Your task to perform on an android device: open wifi settings Image 0: 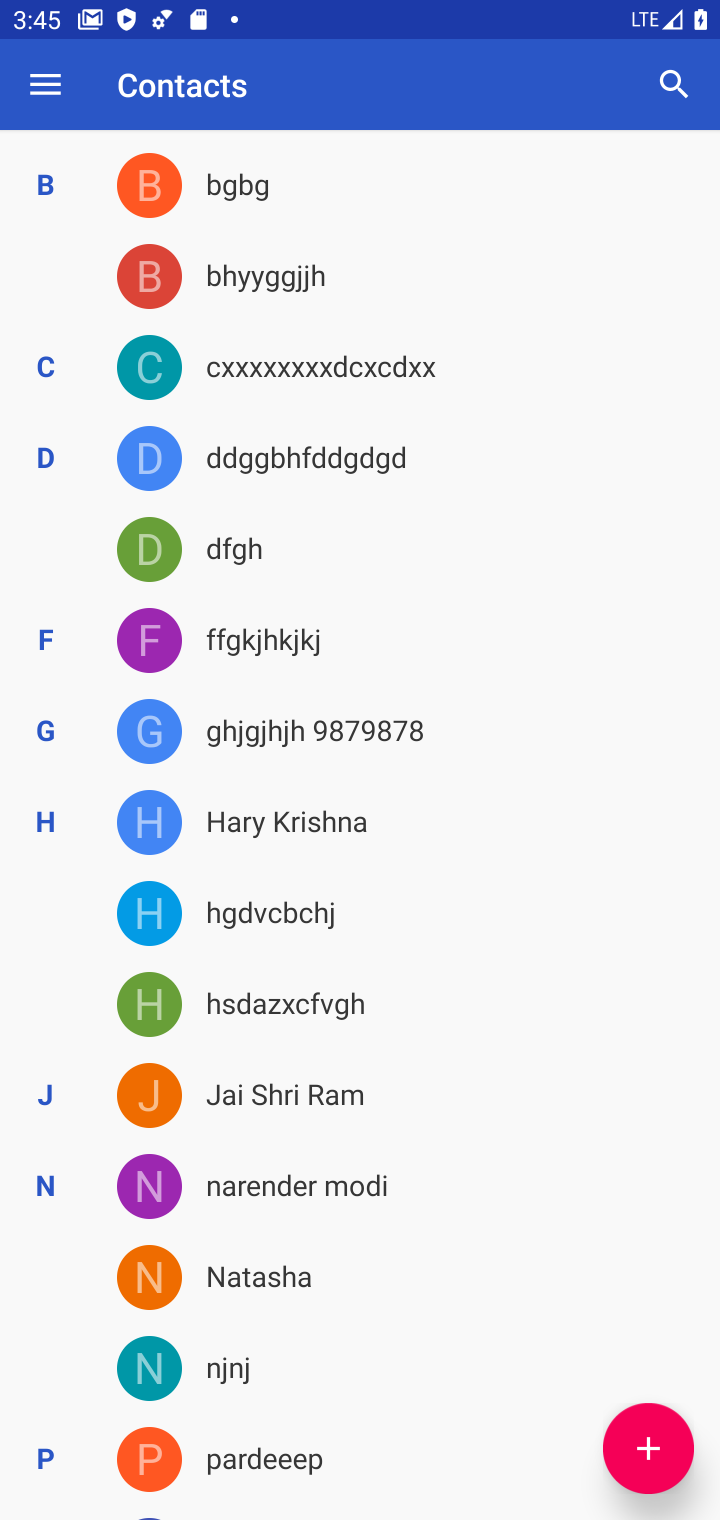
Step 0: press back button
Your task to perform on an android device: open wifi settings Image 1: 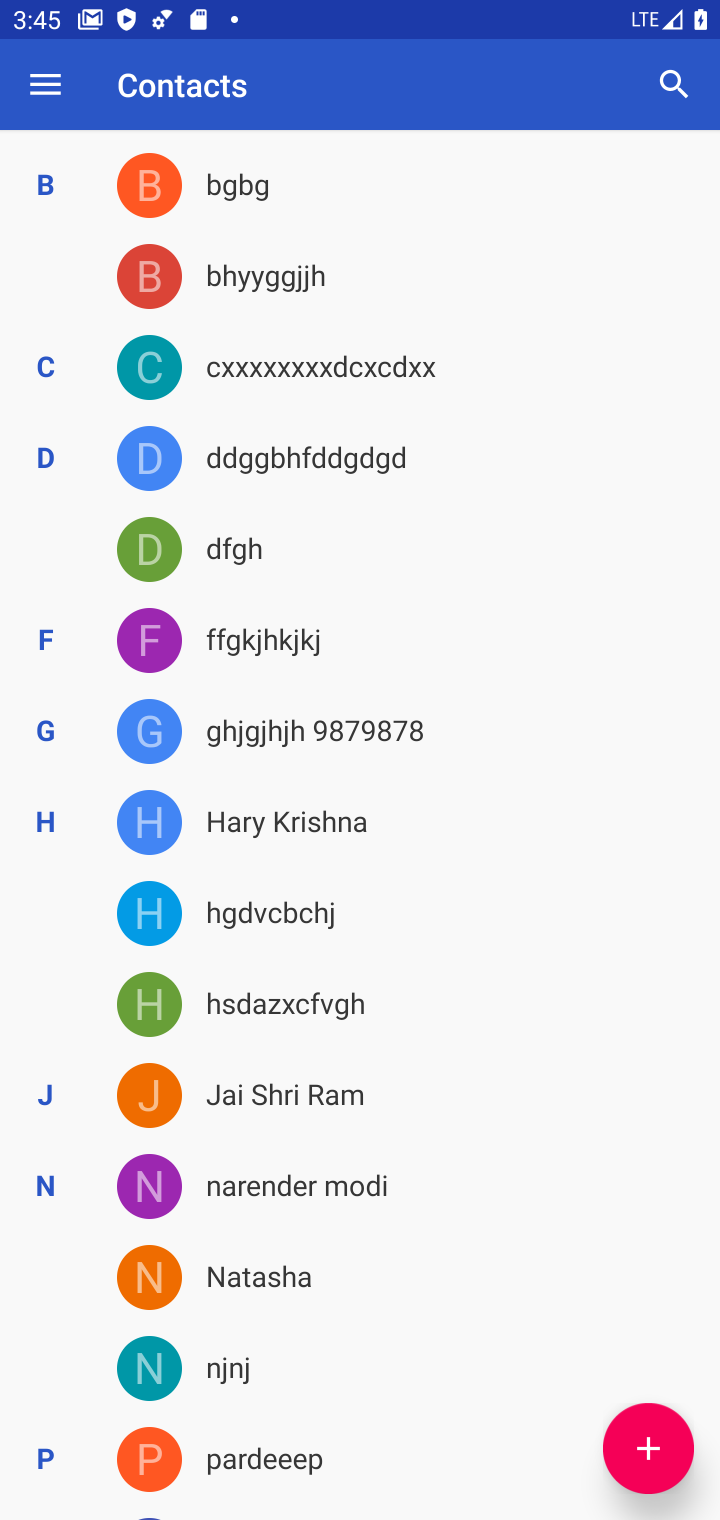
Step 1: press back button
Your task to perform on an android device: open wifi settings Image 2: 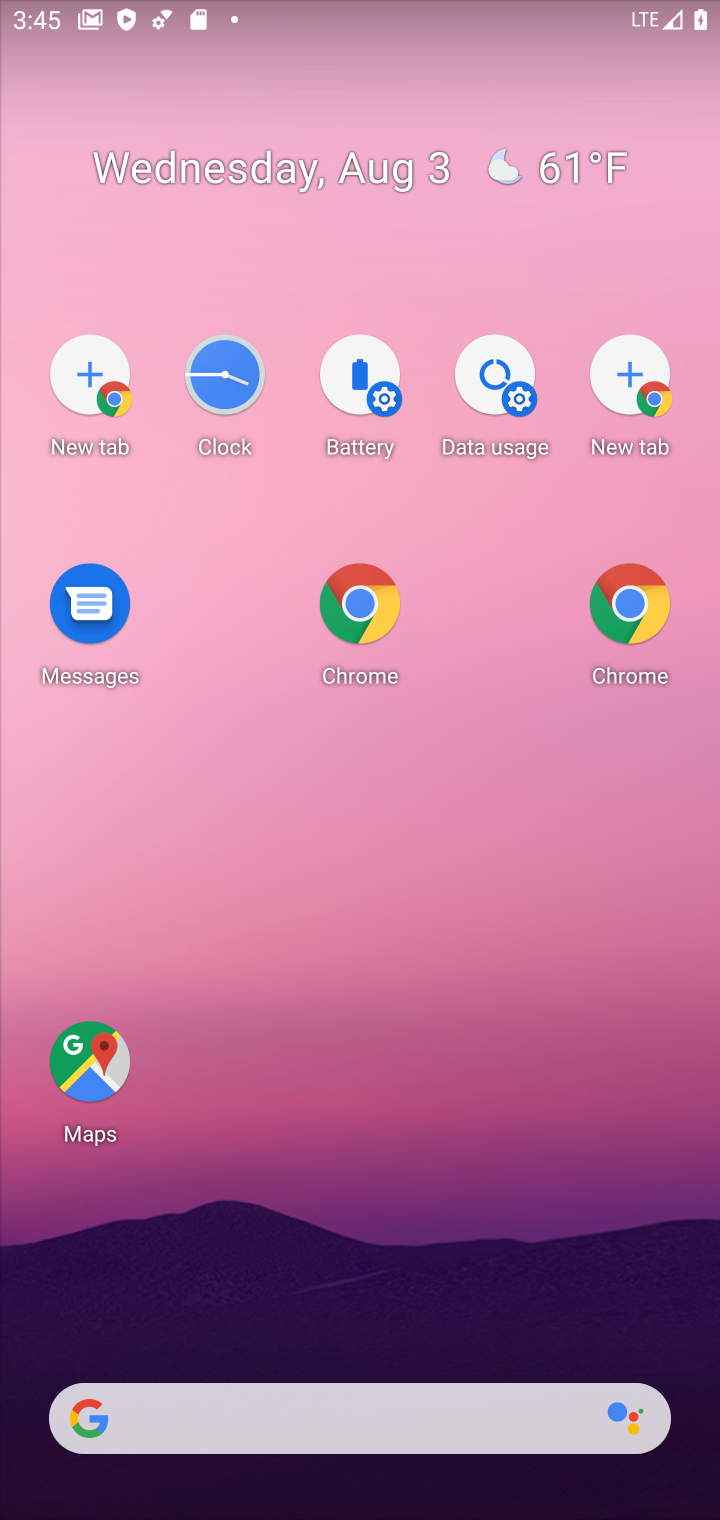
Step 2: drag from (374, 996) to (379, 770)
Your task to perform on an android device: open wifi settings Image 3: 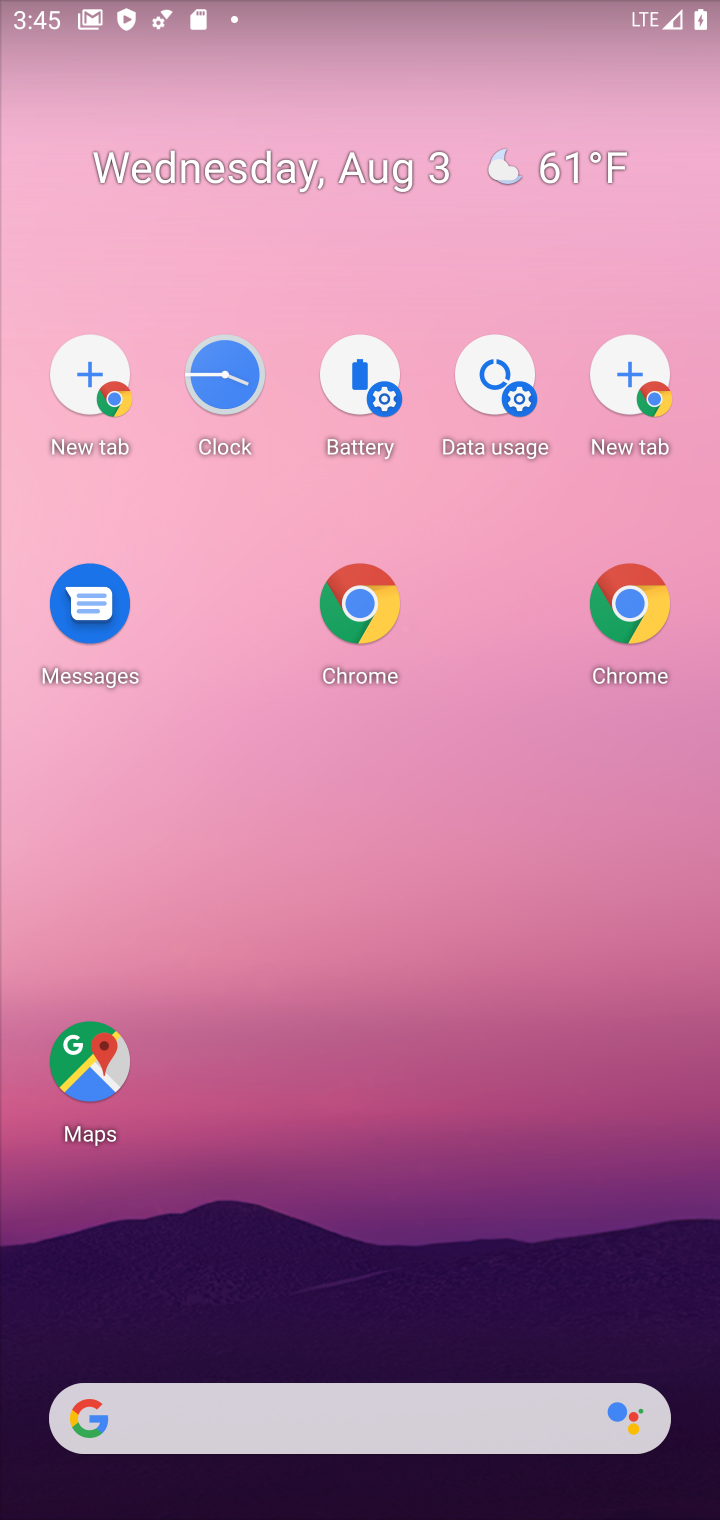
Step 3: click (448, 643)
Your task to perform on an android device: open wifi settings Image 4: 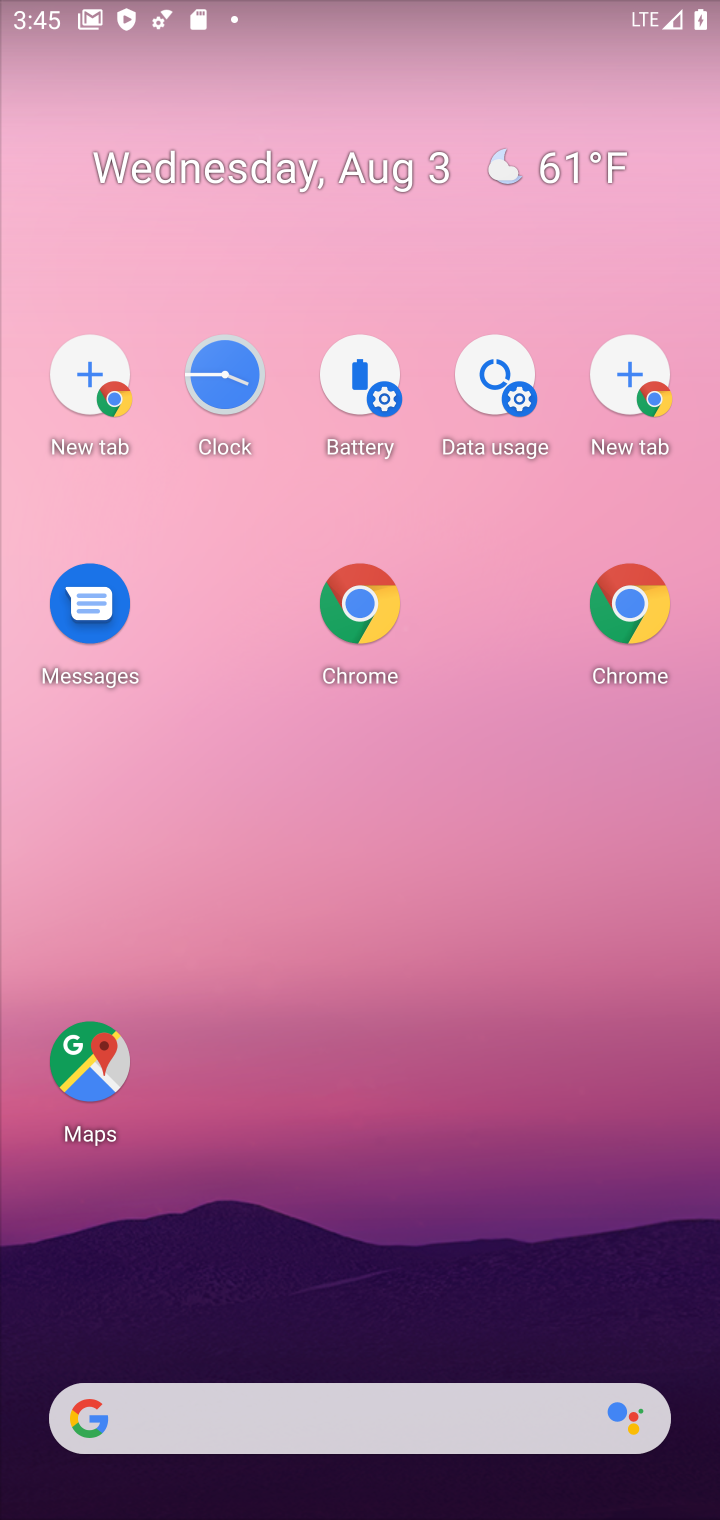
Step 4: drag from (220, 1109) to (305, 470)
Your task to perform on an android device: open wifi settings Image 5: 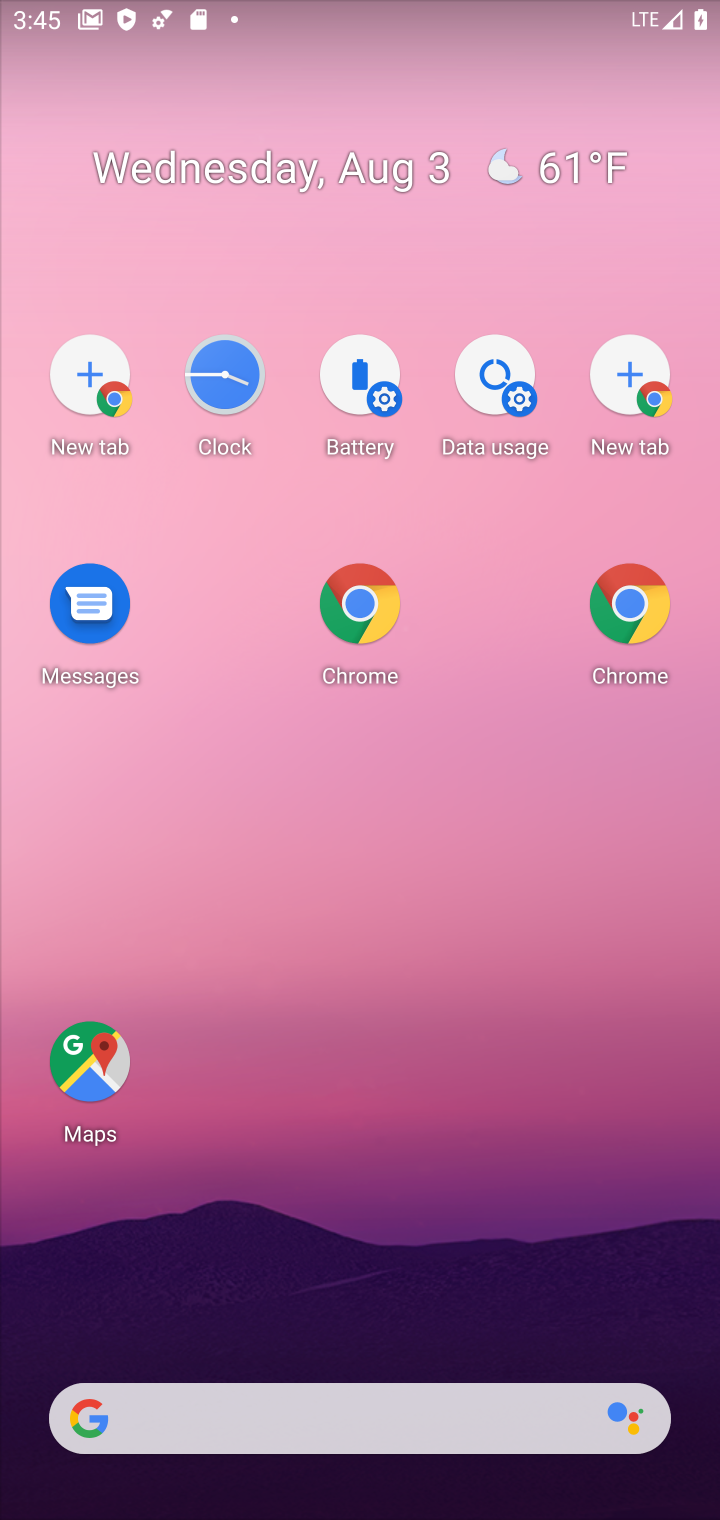
Step 5: click (583, 317)
Your task to perform on an android device: open wifi settings Image 6: 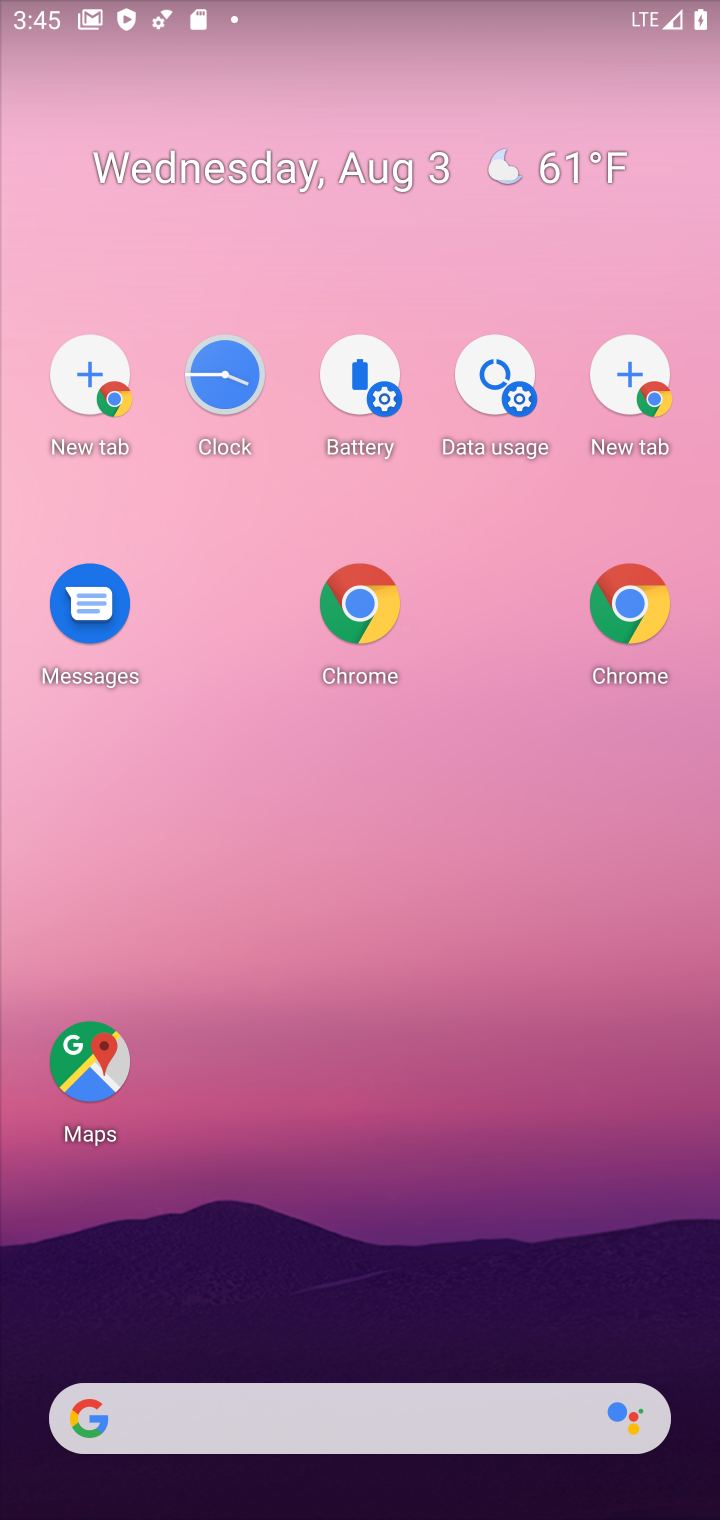
Step 6: drag from (629, 983) to (515, 601)
Your task to perform on an android device: open wifi settings Image 7: 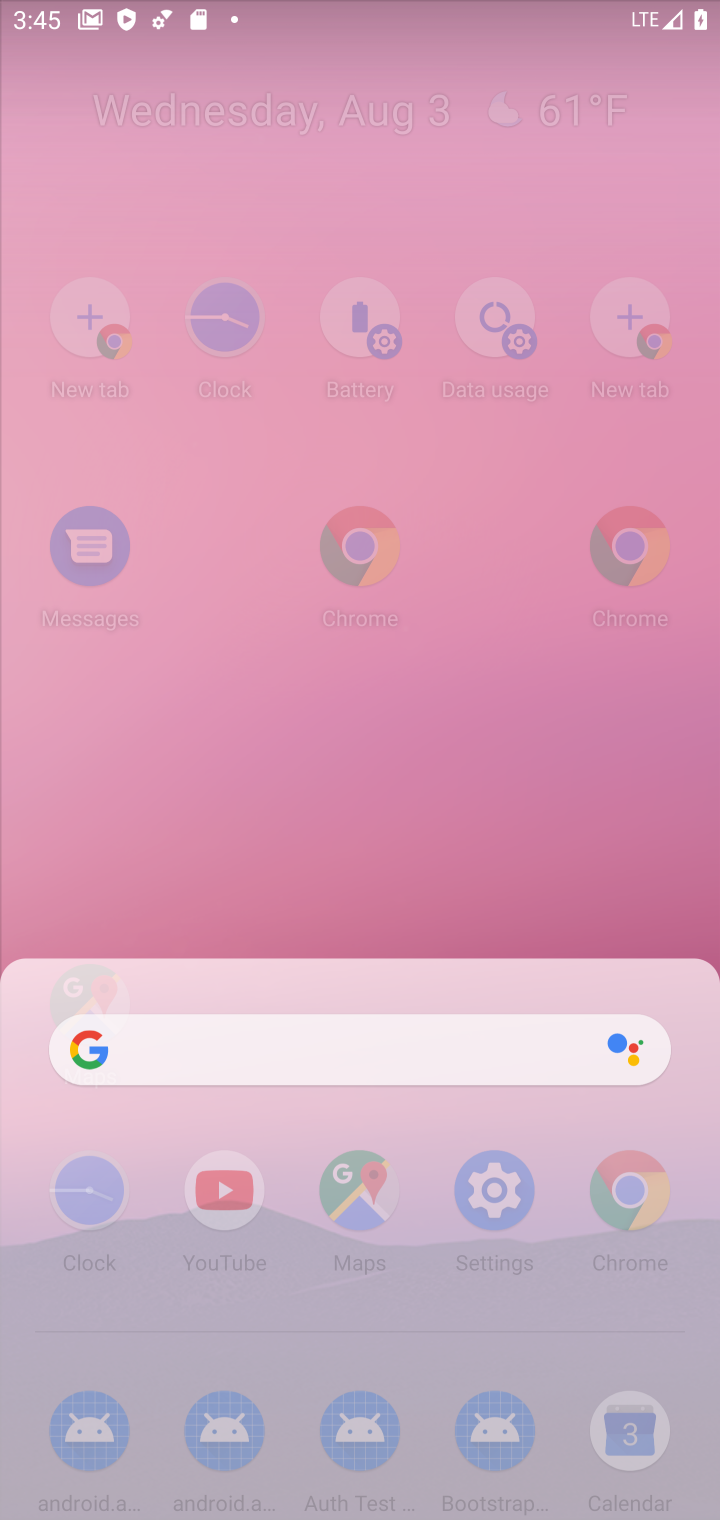
Step 7: drag from (314, 1280) to (437, 566)
Your task to perform on an android device: open wifi settings Image 8: 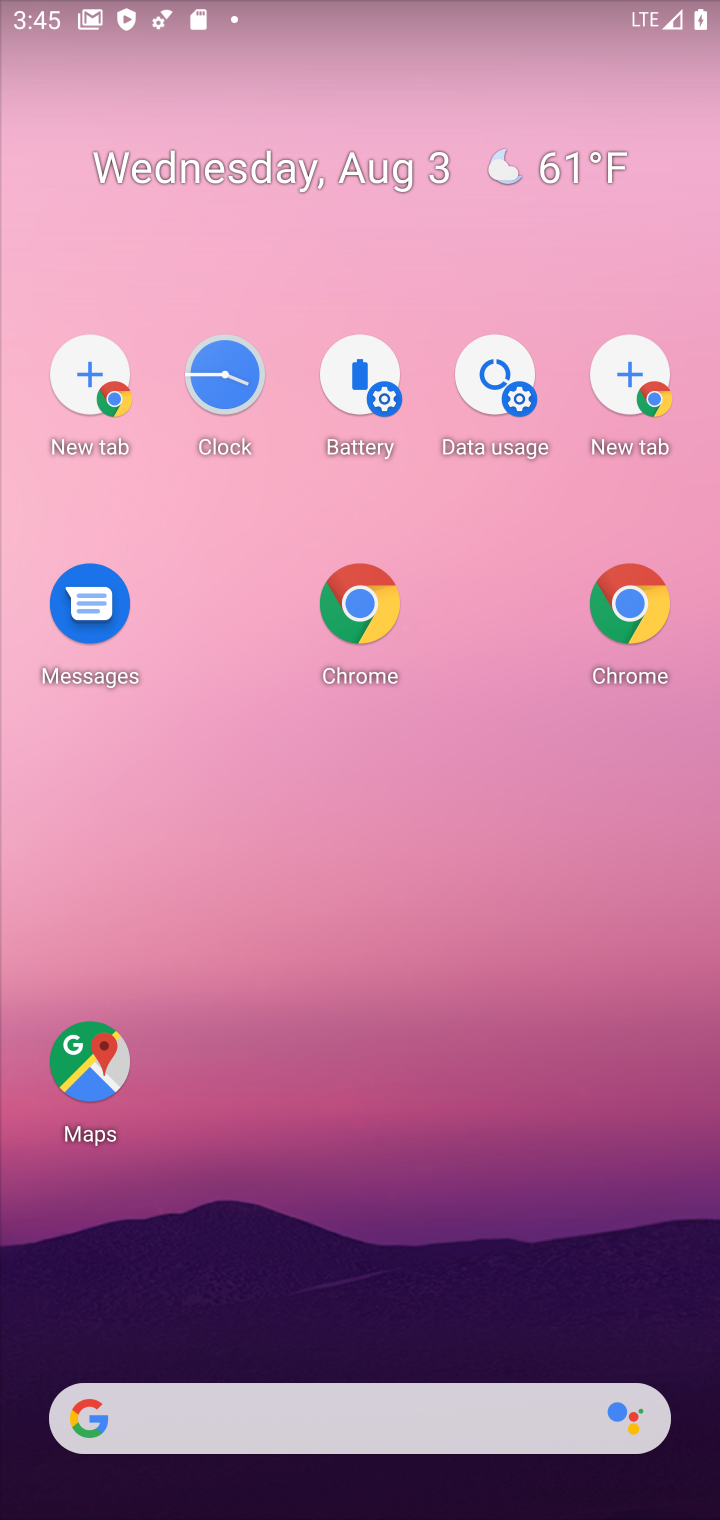
Step 8: drag from (471, 661) to (381, 46)
Your task to perform on an android device: open wifi settings Image 9: 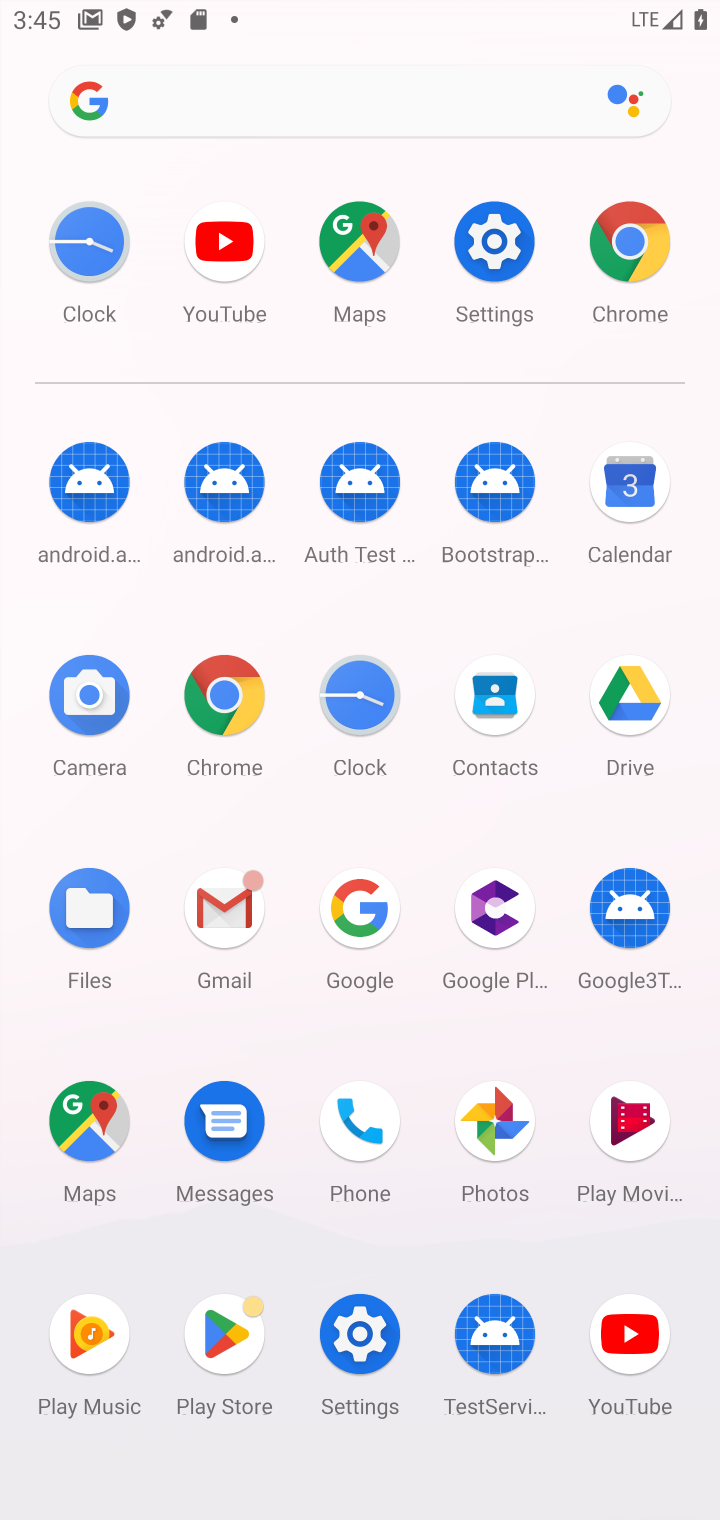
Step 9: click (504, 672)
Your task to perform on an android device: open wifi settings Image 10: 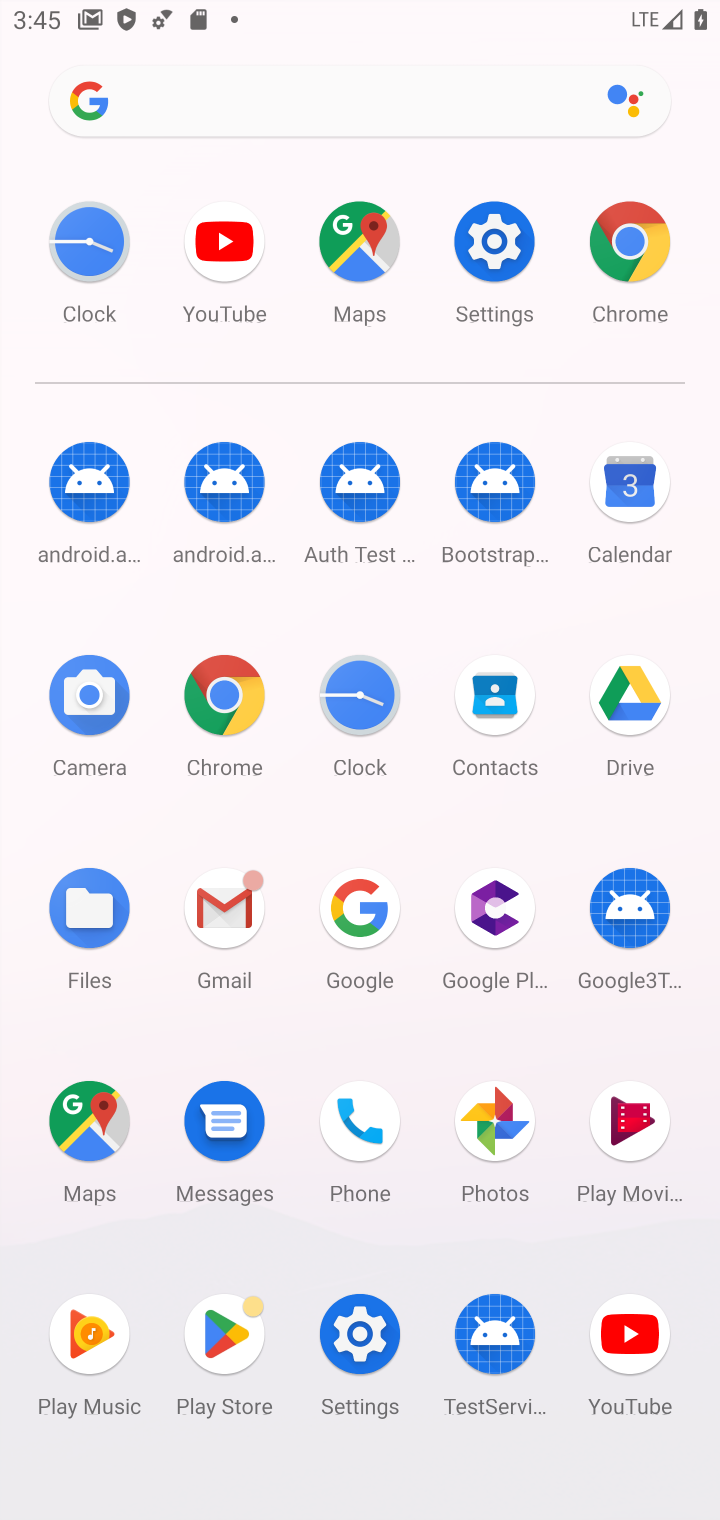
Step 10: click (514, 199)
Your task to perform on an android device: open wifi settings Image 11: 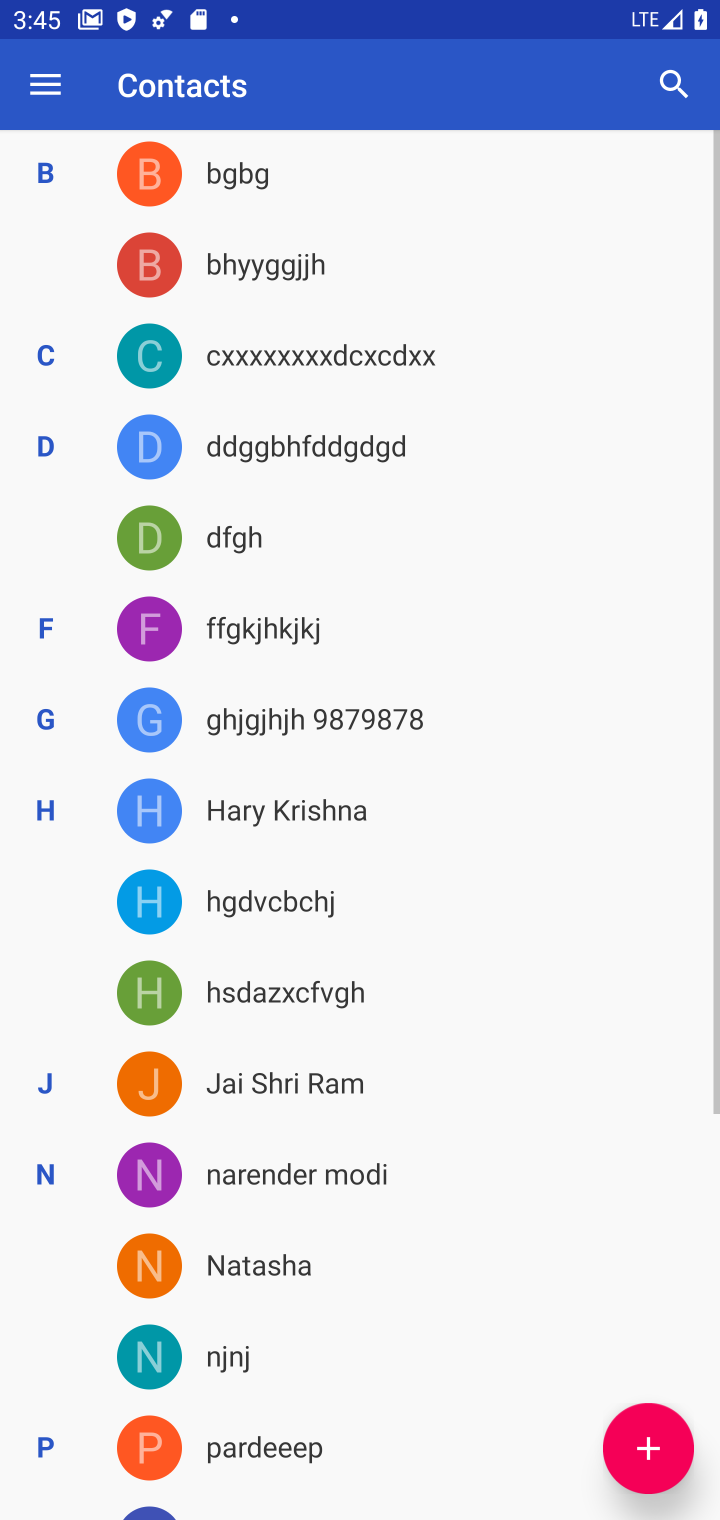
Step 11: click (485, 236)
Your task to perform on an android device: open wifi settings Image 12: 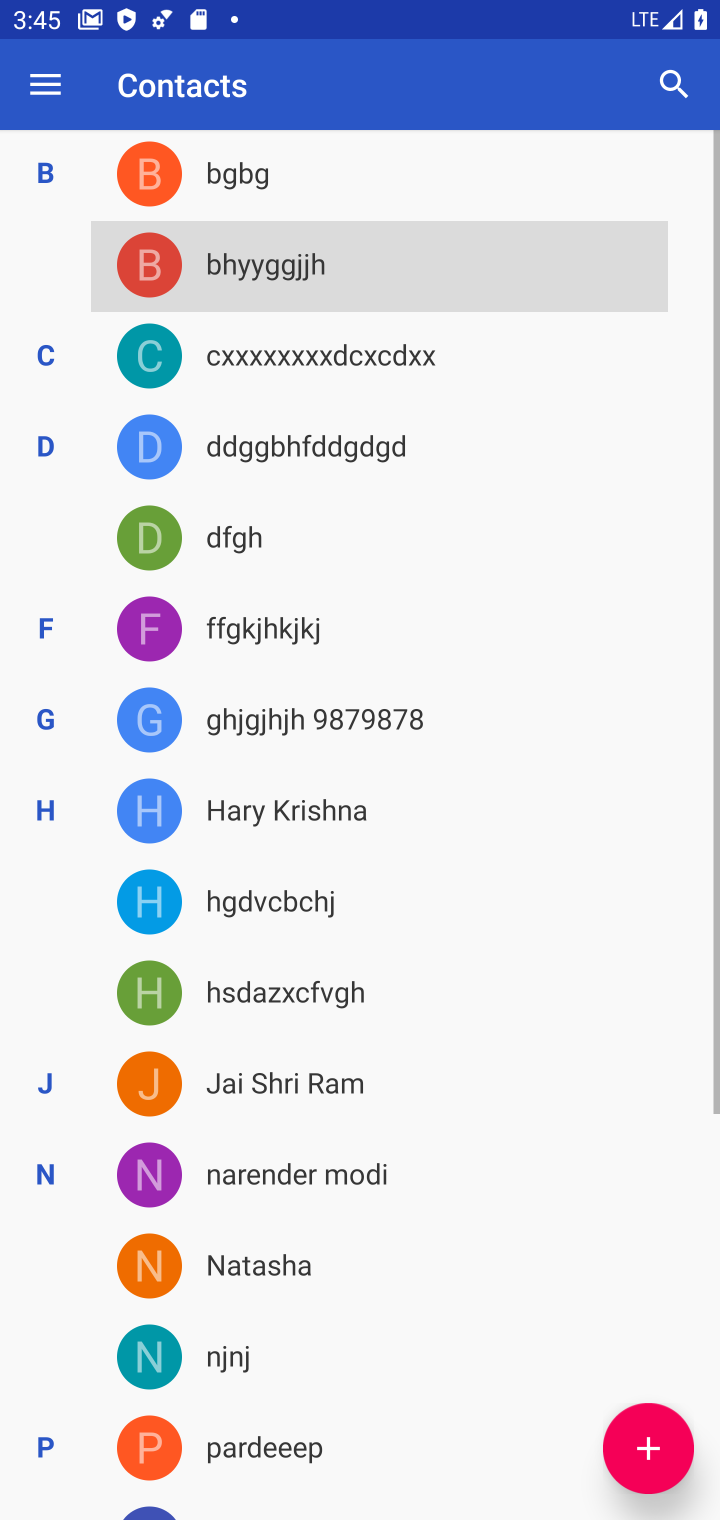
Step 12: click (490, 231)
Your task to perform on an android device: open wifi settings Image 13: 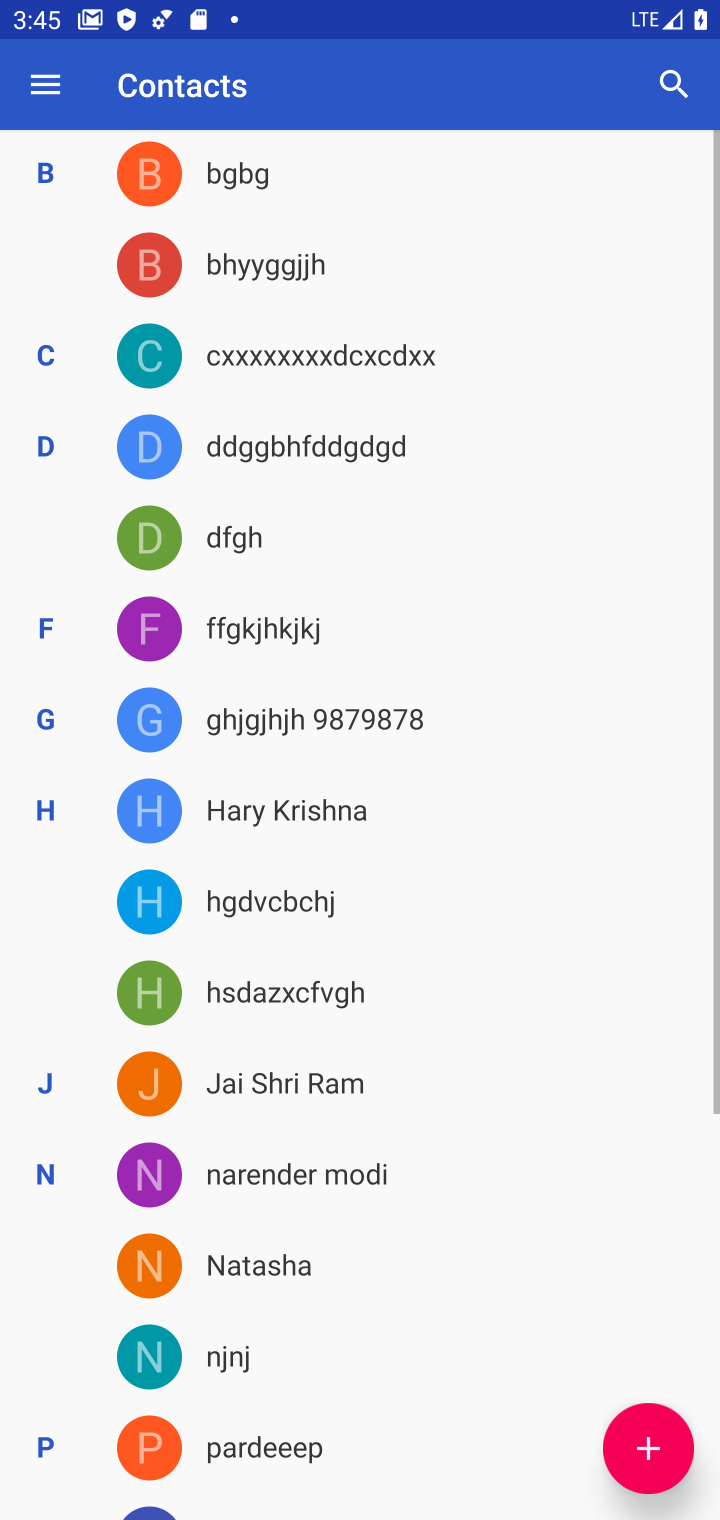
Step 13: press back button
Your task to perform on an android device: open wifi settings Image 14: 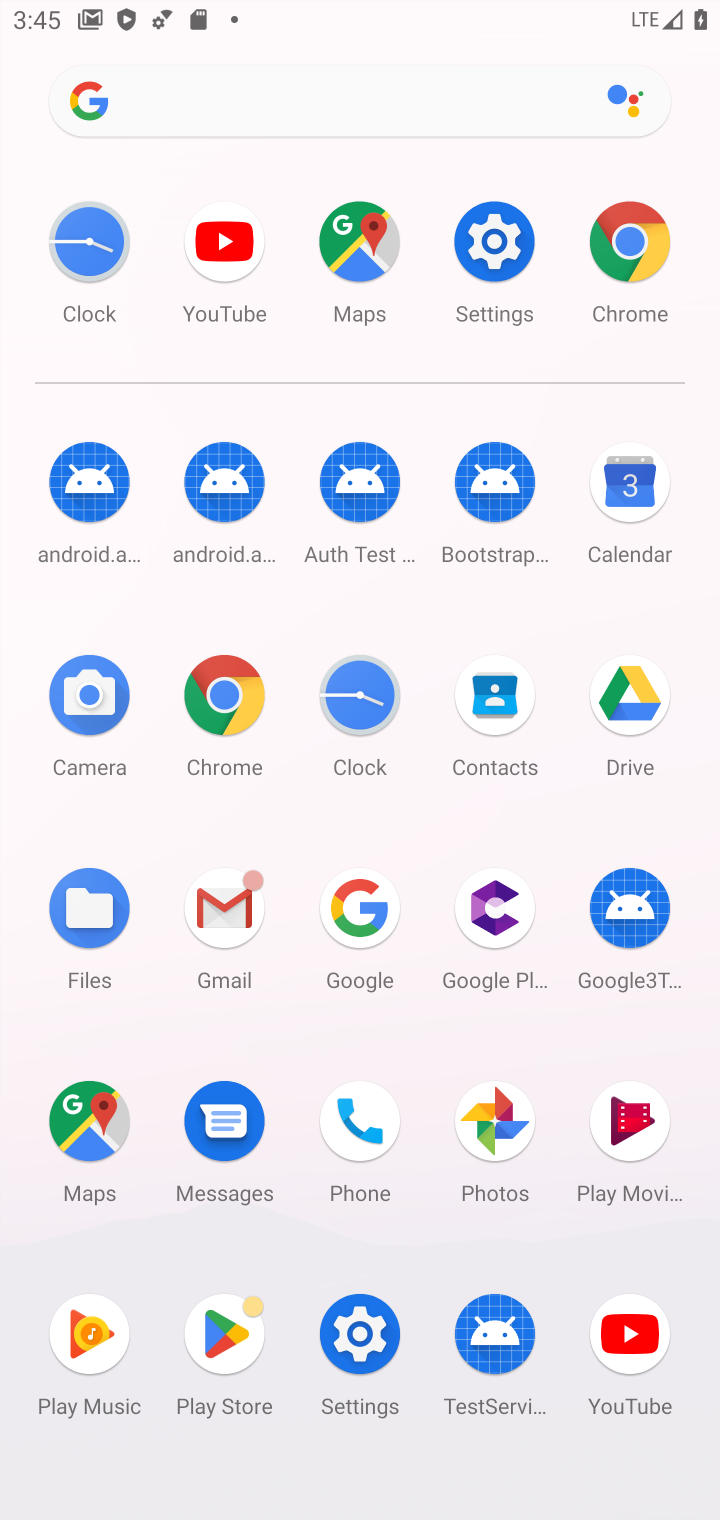
Step 14: click (500, 274)
Your task to perform on an android device: open wifi settings Image 15: 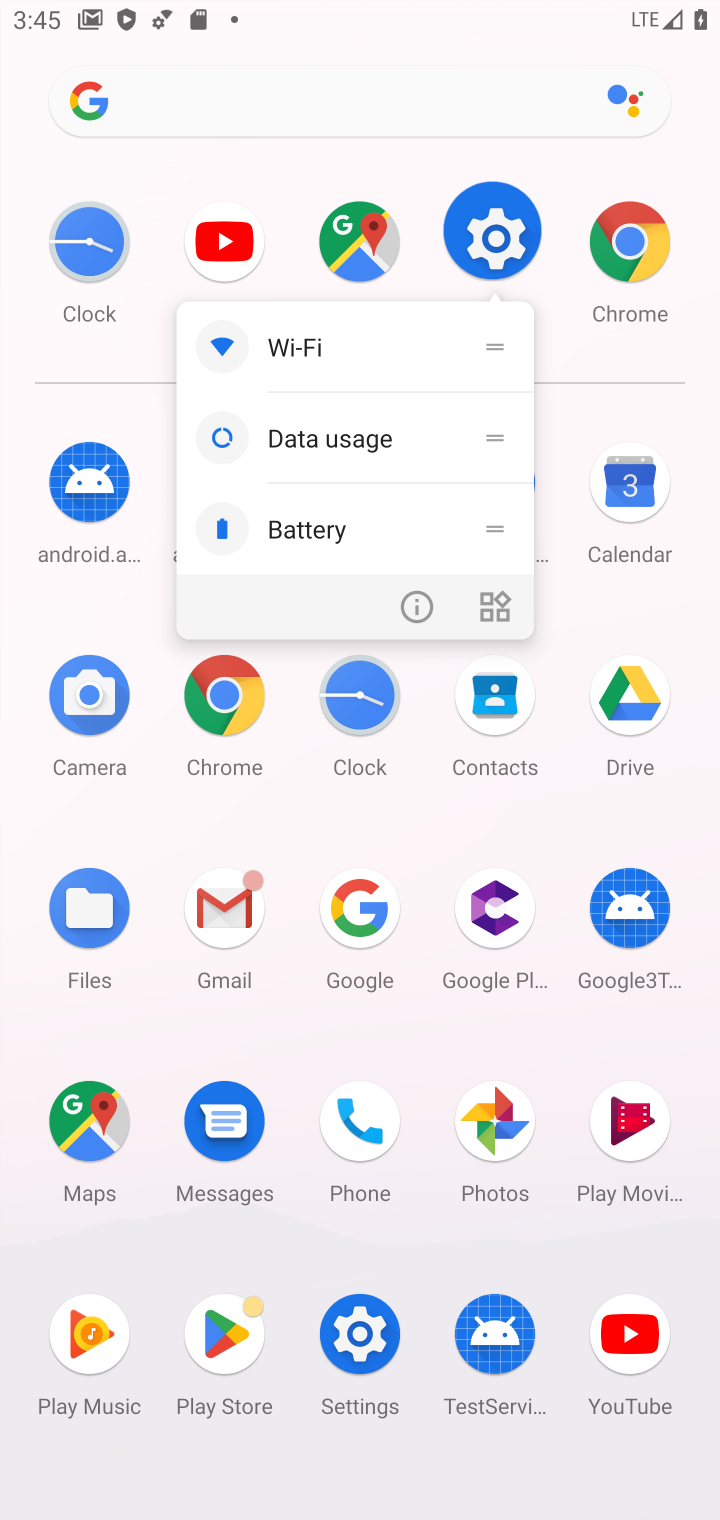
Step 15: click (509, 252)
Your task to perform on an android device: open wifi settings Image 16: 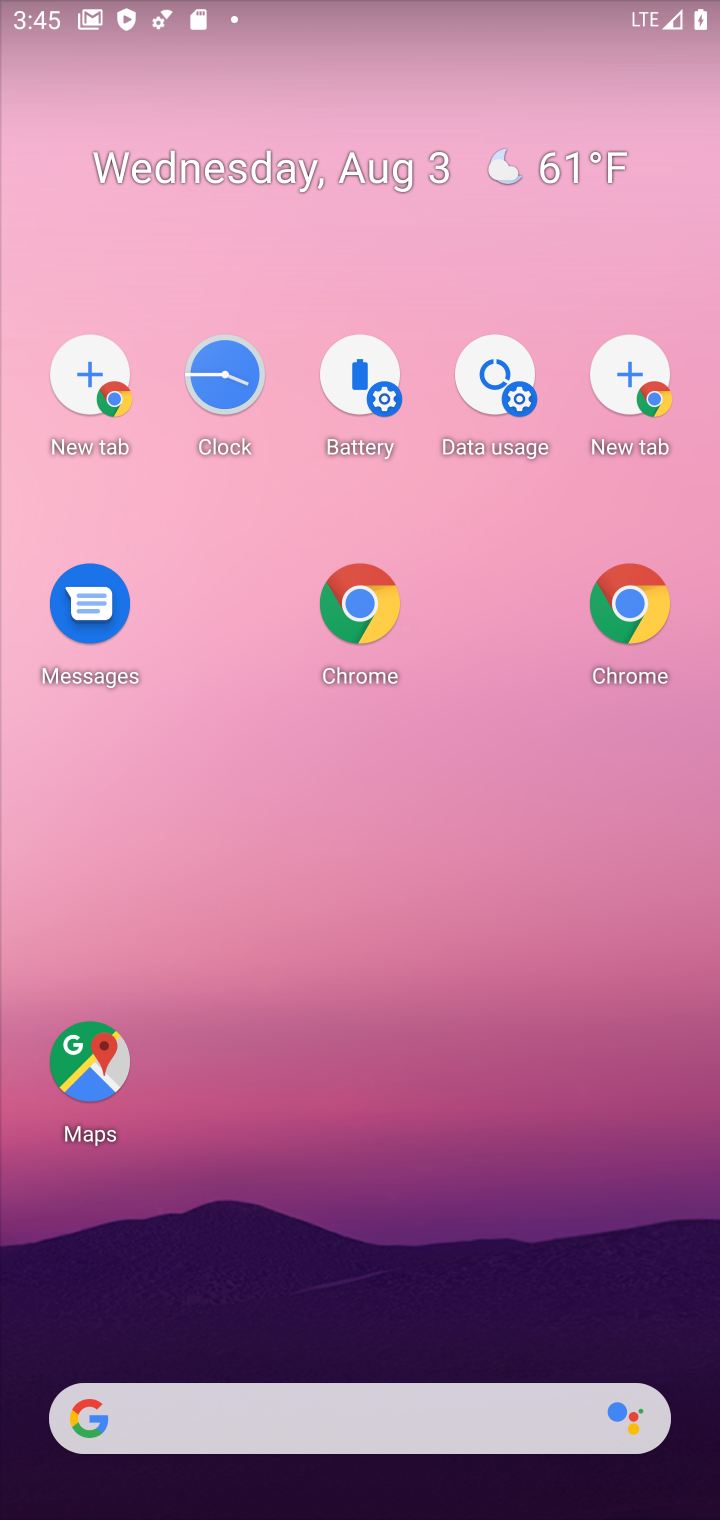
Step 16: click (536, 269)
Your task to perform on an android device: open wifi settings Image 17: 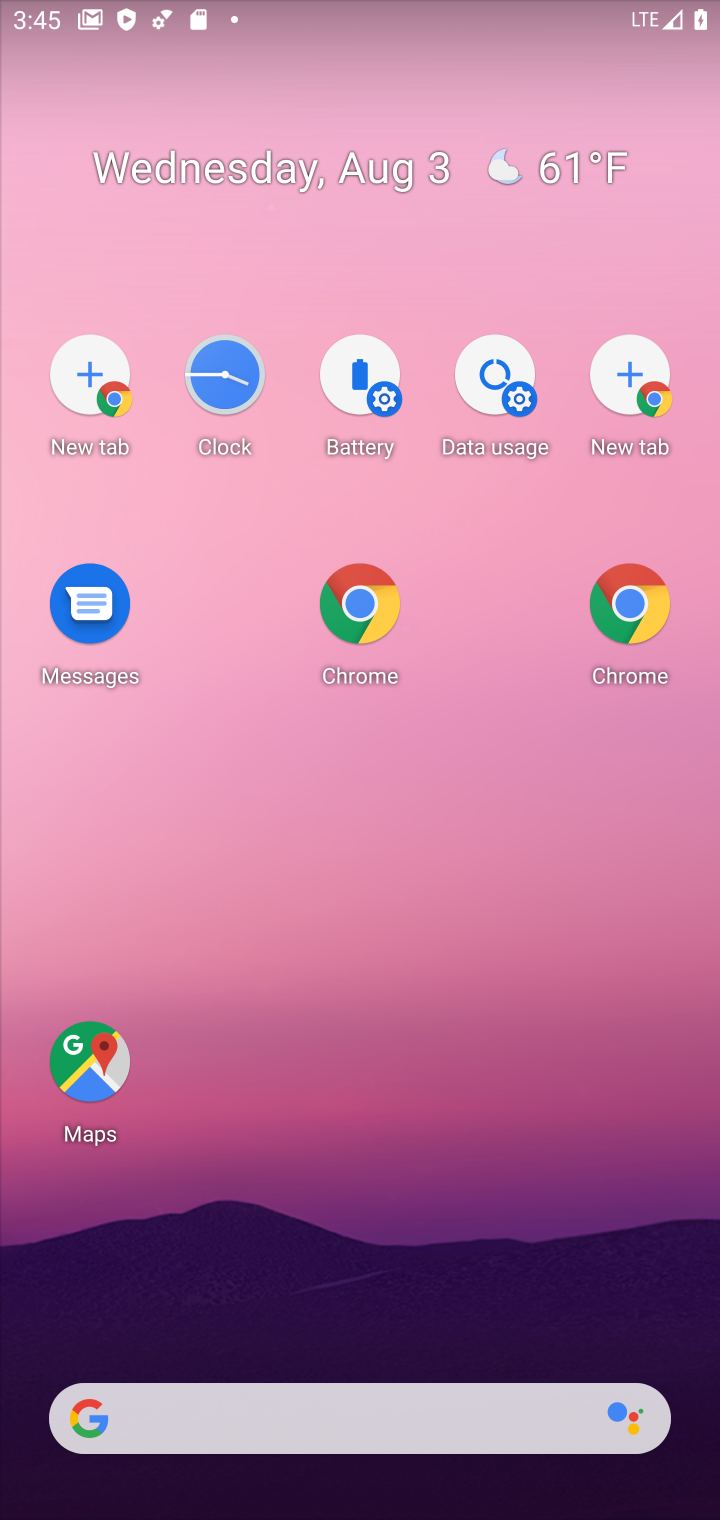
Step 17: task complete